Your task to perform on an android device: Show me productivity apps on the Play Store Image 0: 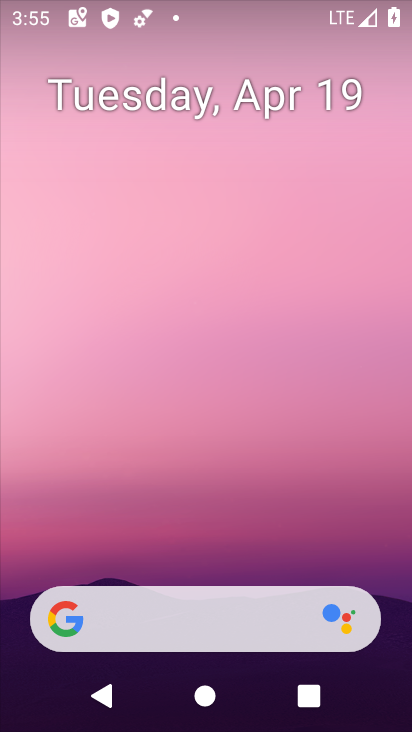
Step 0: drag from (209, 546) to (270, 87)
Your task to perform on an android device: Show me productivity apps on the Play Store Image 1: 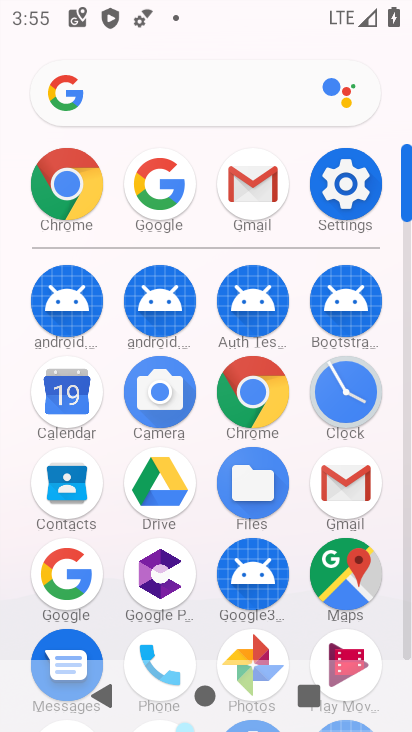
Step 1: drag from (192, 462) to (210, 303)
Your task to perform on an android device: Show me productivity apps on the Play Store Image 2: 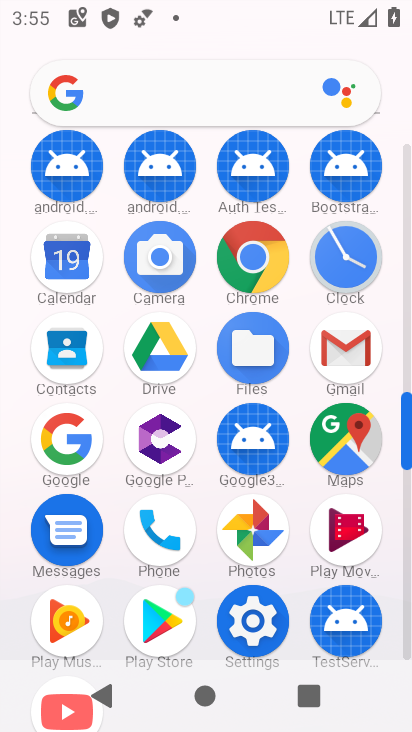
Step 2: drag from (207, 388) to (226, 247)
Your task to perform on an android device: Show me productivity apps on the Play Store Image 3: 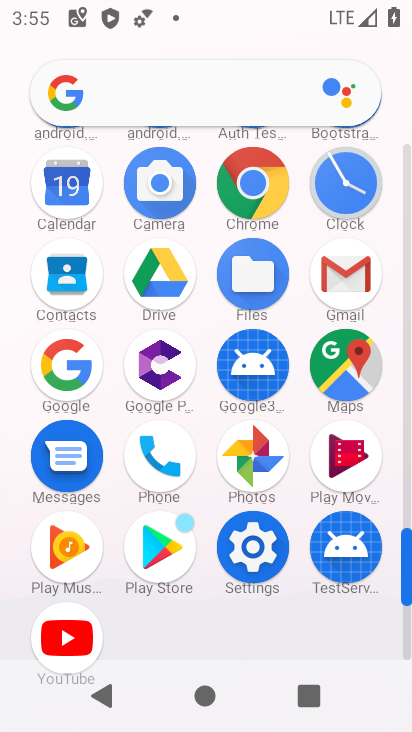
Step 3: click (159, 544)
Your task to perform on an android device: Show me productivity apps on the Play Store Image 4: 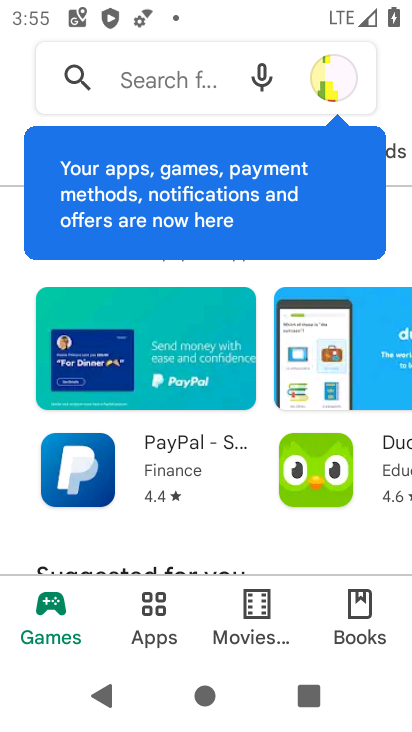
Step 4: click (151, 594)
Your task to perform on an android device: Show me productivity apps on the Play Store Image 5: 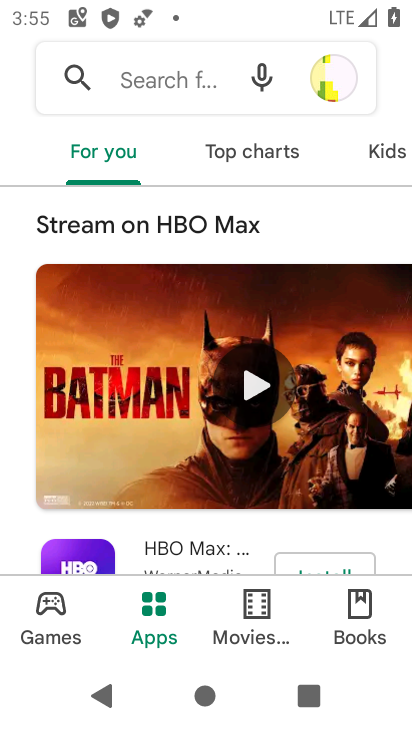
Step 5: drag from (322, 162) to (96, 178)
Your task to perform on an android device: Show me productivity apps on the Play Store Image 6: 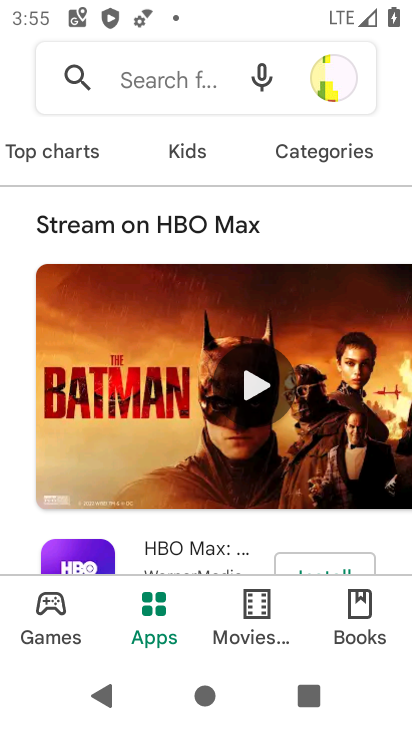
Step 6: click (324, 154)
Your task to perform on an android device: Show me productivity apps on the Play Store Image 7: 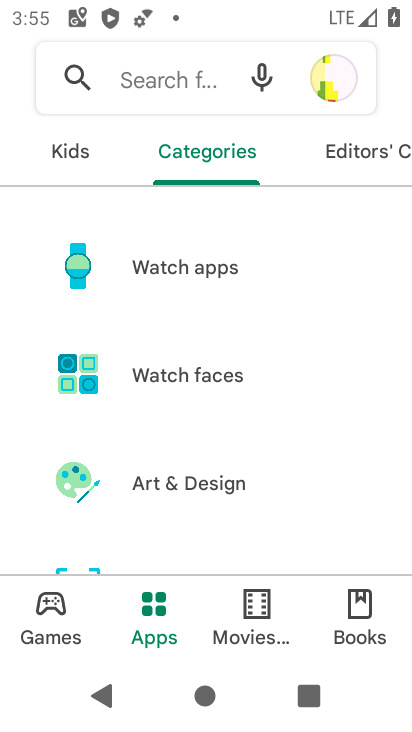
Step 7: drag from (214, 405) to (246, 332)
Your task to perform on an android device: Show me productivity apps on the Play Store Image 8: 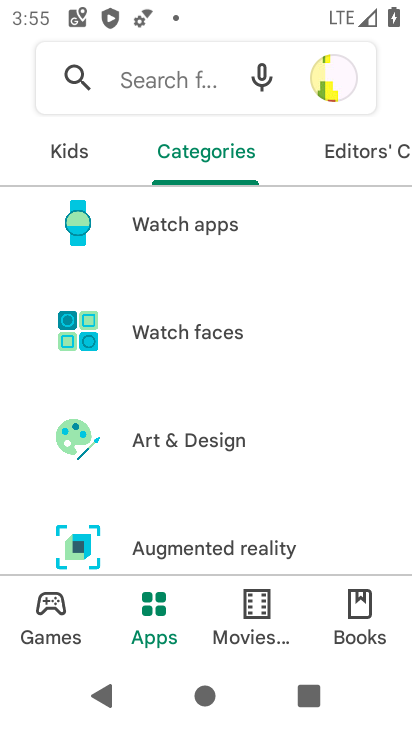
Step 8: drag from (238, 400) to (270, 334)
Your task to perform on an android device: Show me productivity apps on the Play Store Image 9: 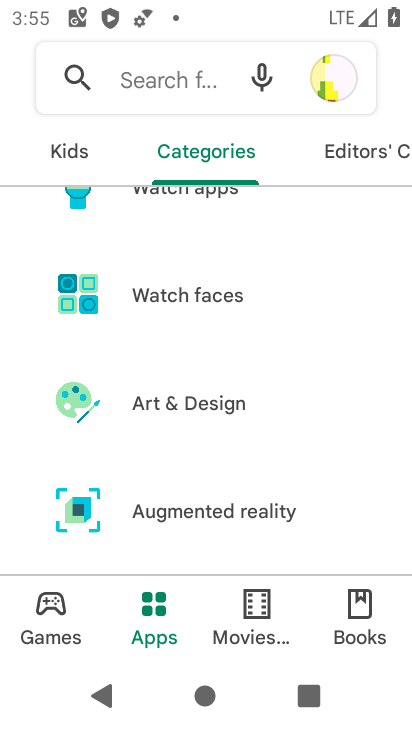
Step 9: drag from (258, 445) to (306, 354)
Your task to perform on an android device: Show me productivity apps on the Play Store Image 10: 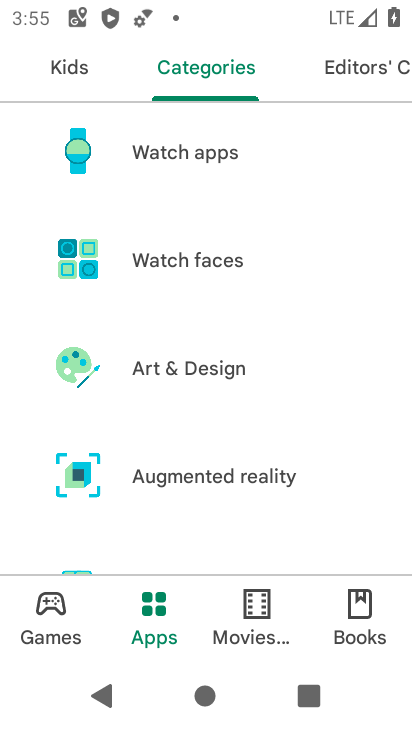
Step 10: drag from (227, 510) to (291, 396)
Your task to perform on an android device: Show me productivity apps on the Play Store Image 11: 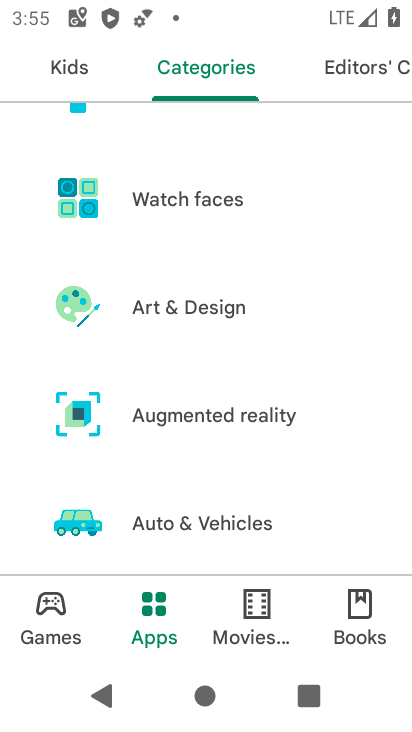
Step 11: drag from (254, 457) to (305, 342)
Your task to perform on an android device: Show me productivity apps on the Play Store Image 12: 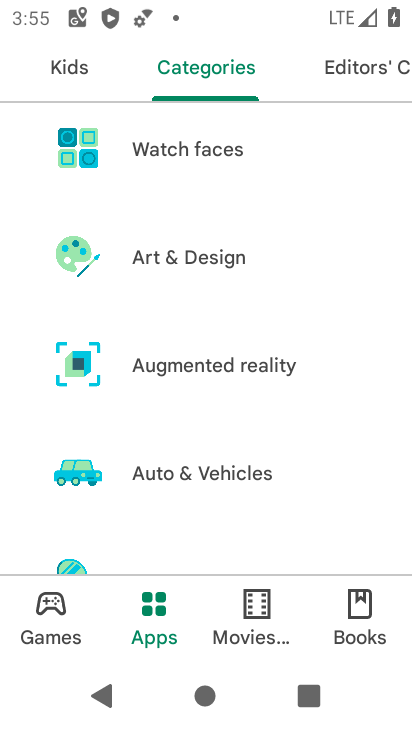
Step 12: drag from (234, 500) to (310, 386)
Your task to perform on an android device: Show me productivity apps on the Play Store Image 13: 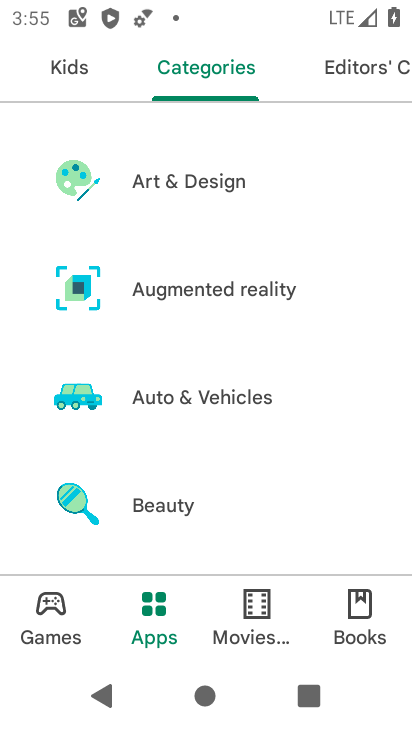
Step 13: drag from (244, 464) to (327, 364)
Your task to perform on an android device: Show me productivity apps on the Play Store Image 14: 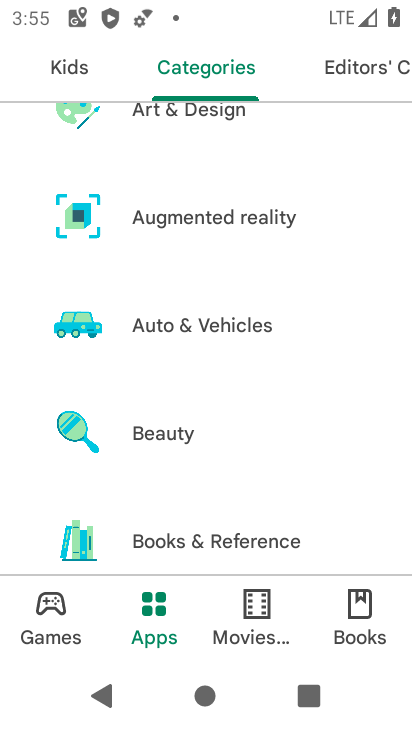
Step 14: drag from (247, 487) to (310, 379)
Your task to perform on an android device: Show me productivity apps on the Play Store Image 15: 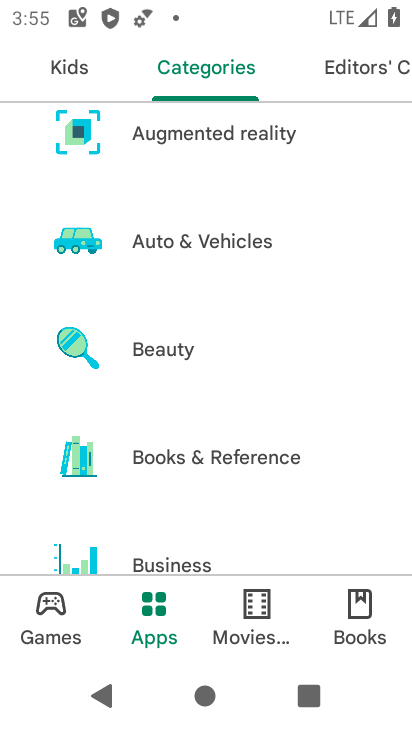
Step 15: drag from (207, 508) to (309, 388)
Your task to perform on an android device: Show me productivity apps on the Play Store Image 16: 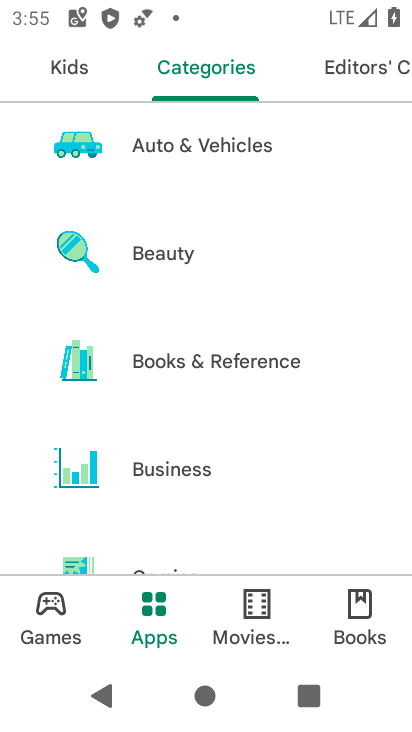
Step 16: drag from (183, 519) to (285, 403)
Your task to perform on an android device: Show me productivity apps on the Play Store Image 17: 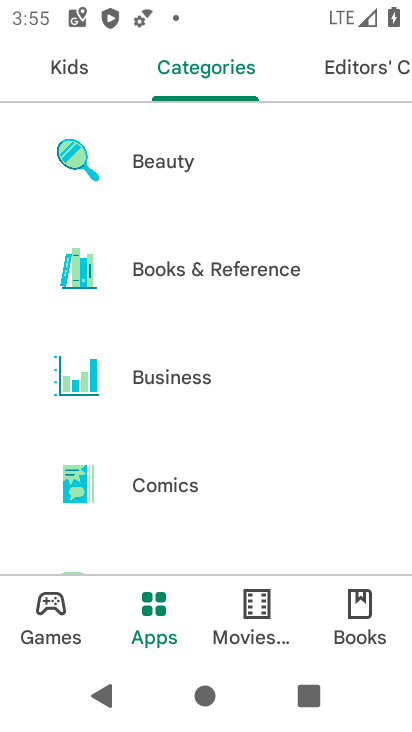
Step 17: drag from (164, 526) to (274, 408)
Your task to perform on an android device: Show me productivity apps on the Play Store Image 18: 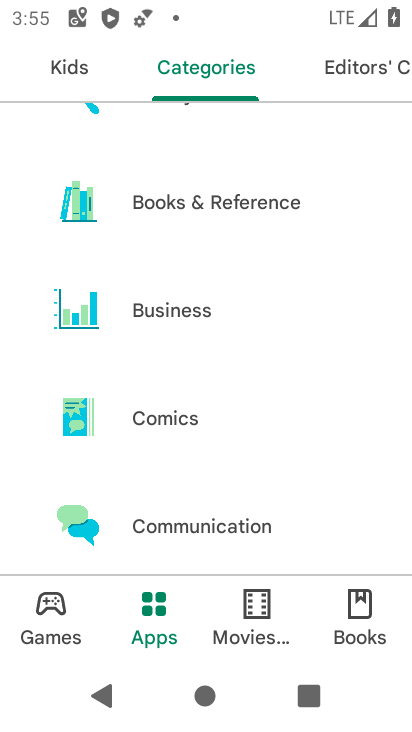
Step 18: drag from (157, 475) to (263, 368)
Your task to perform on an android device: Show me productivity apps on the Play Store Image 19: 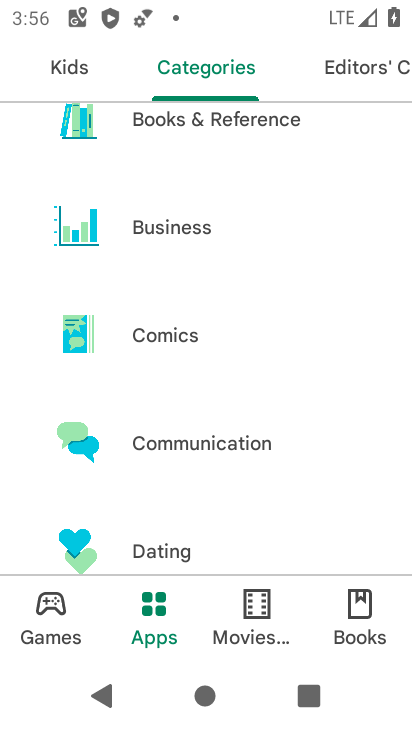
Step 19: drag from (170, 496) to (270, 381)
Your task to perform on an android device: Show me productivity apps on the Play Store Image 20: 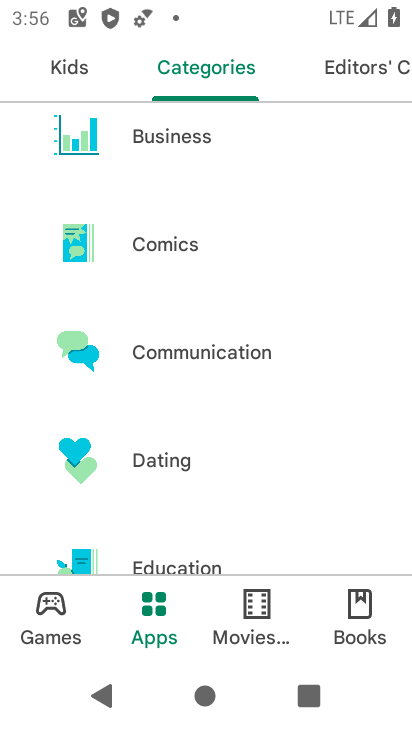
Step 20: drag from (125, 512) to (240, 392)
Your task to perform on an android device: Show me productivity apps on the Play Store Image 21: 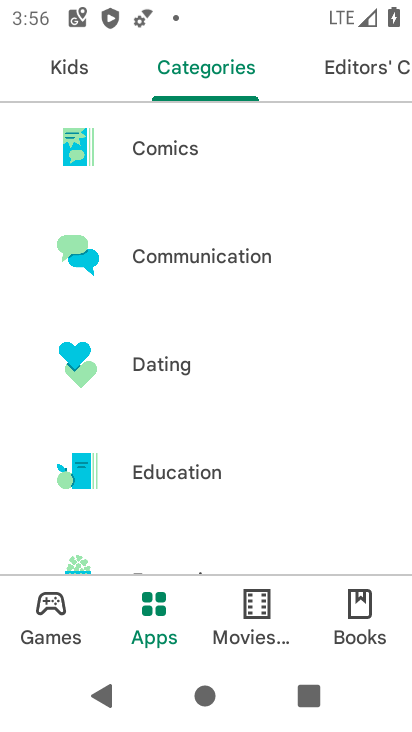
Step 21: drag from (119, 527) to (239, 396)
Your task to perform on an android device: Show me productivity apps on the Play Store Image 22: 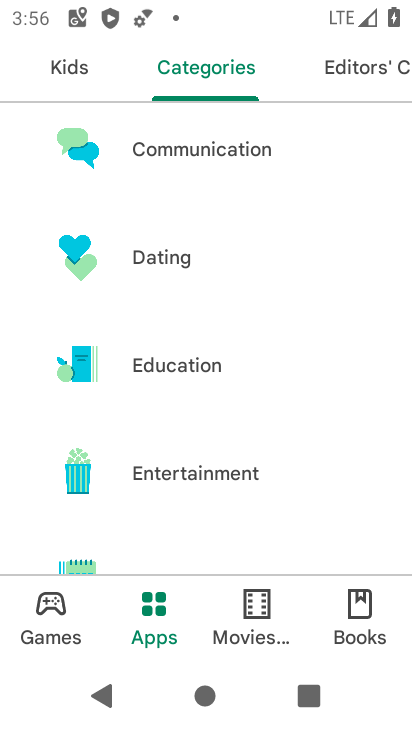
Step 22: drag from (117, 519) to (243, 394)
Your task to perform on an android device: Show me productivity apps on the Play Store Image 23: 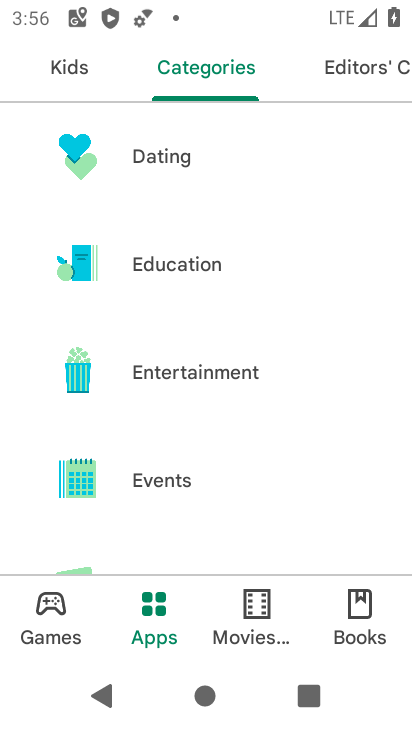
Step 23: drag from (102, 537) to (231, 403)
Your task to perform on an android device: Show me productivity apps on the Play Store Image 24: 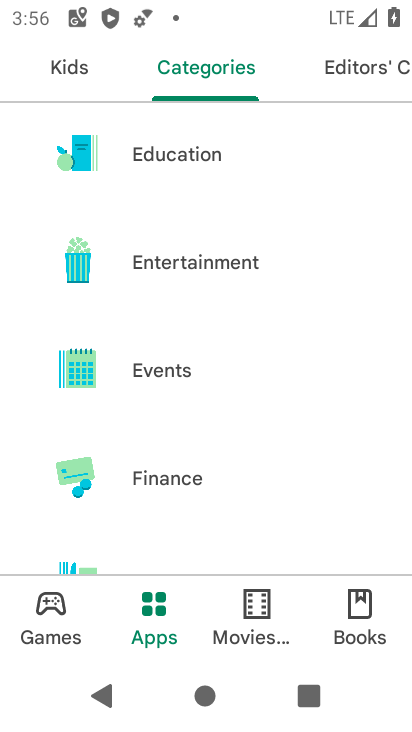
Step 24: drag from (74, 521) to (201, 407)
Your task to perform on an android device: Show me productivity apps on the Play Store Image 25: 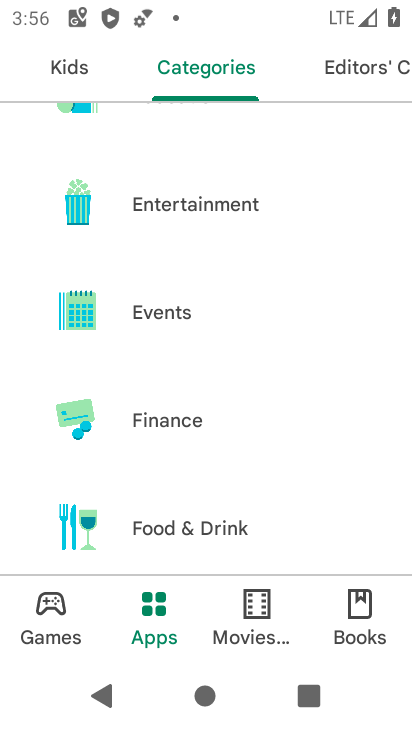
Step 25: drag from (87, 471) to (201, 376)
Your task to perform on an android device: Show me productivity apps on the Play Store Image 26: 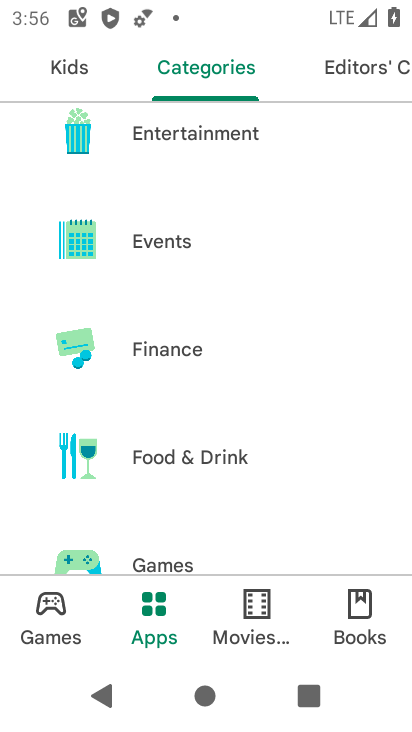
Step 26: drag from (90, 519) to (219, 392)
Your task to perform on an android device: Show me productivity apps on the Play Store Image 27: 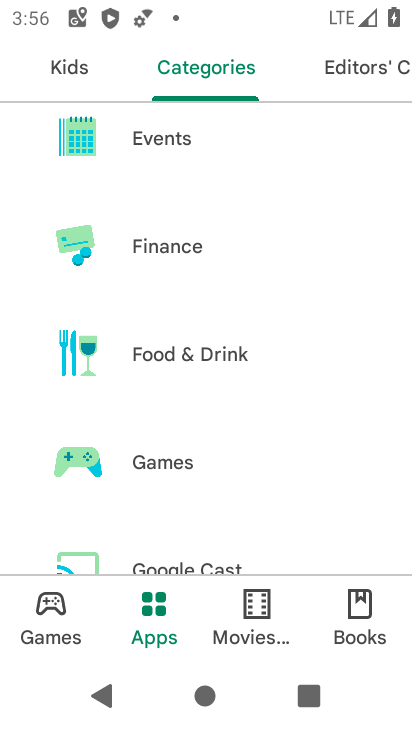
Step 27: drag from (66, 493) to (182, 392)
Your task to perform on an android device: Show me productivity apps on the Play Store Image 28: 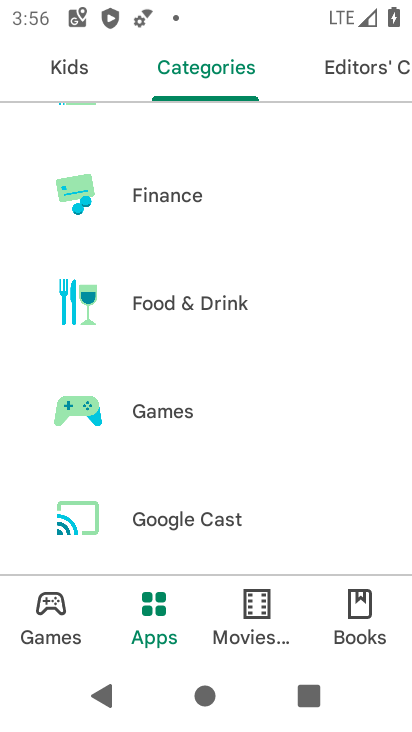
Step 28: drag from (100, 474) to (204, 383)
Your task to perform on an android device: Show me productivity apps on the Play Store Image 29: 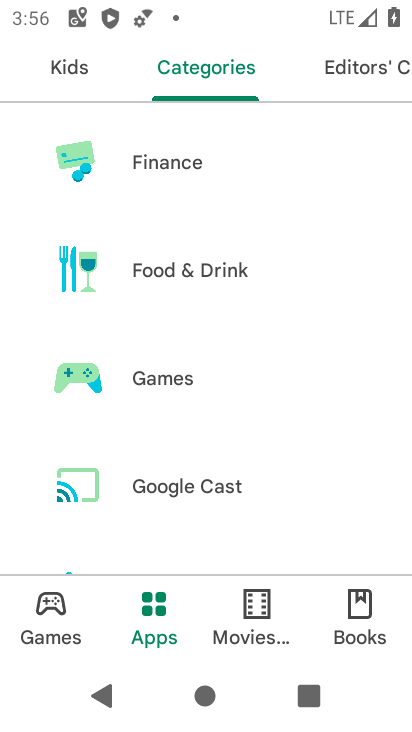
Step 29: drag from (64, 523) to (213, 403)
Your task to perform on an android device: Show me productivity apps on the Play Store Image 30: 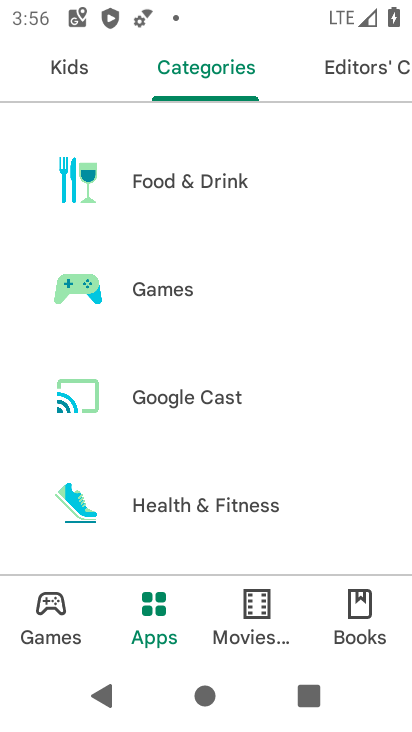
Step 30: drag from (91, 457) to (240, 318)
Your task to perform on an android device: Show me productivity apps on the Play Store Image 31: 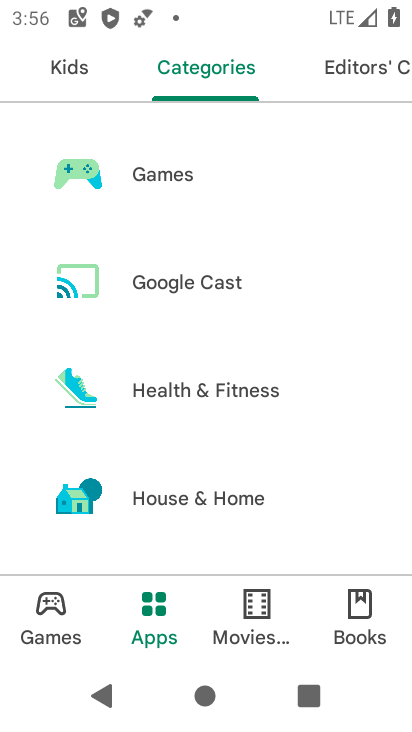
Step 31: drag from (92, 445) to (202, 327)
Your task to perform on an android device: Show me productivity apps on the Play Store Image 32: 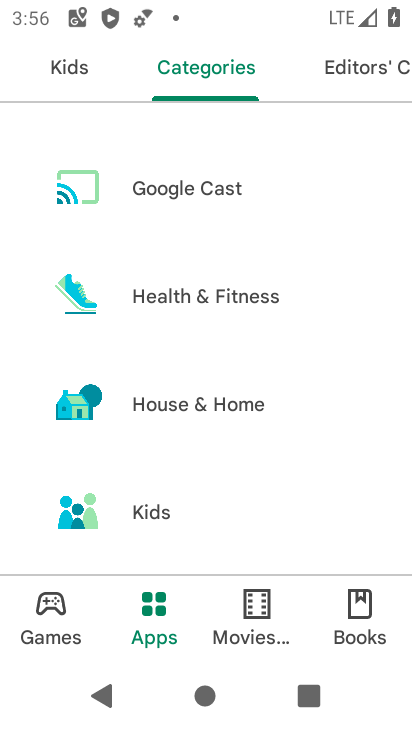
Step 32: drag from (77, 469) to (212, 334)
Your task to perform on an android device: Show me productivity apps on the Play Store Image 33: 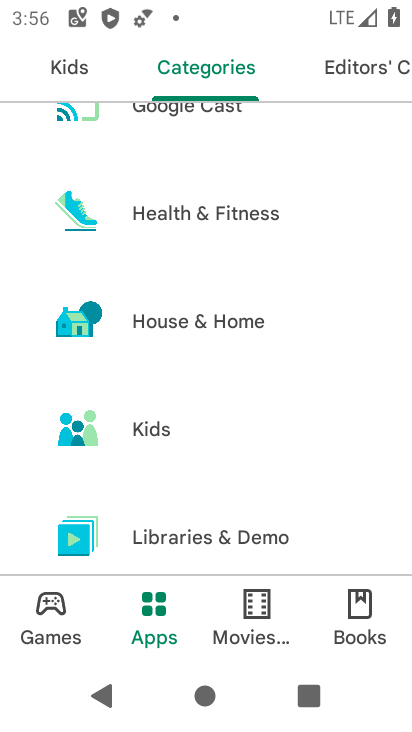
Step 33: drag from (100, 477) to (211, 367)
Your task to perform on an android device: Show me productivity apps on the Play Store Image 34: 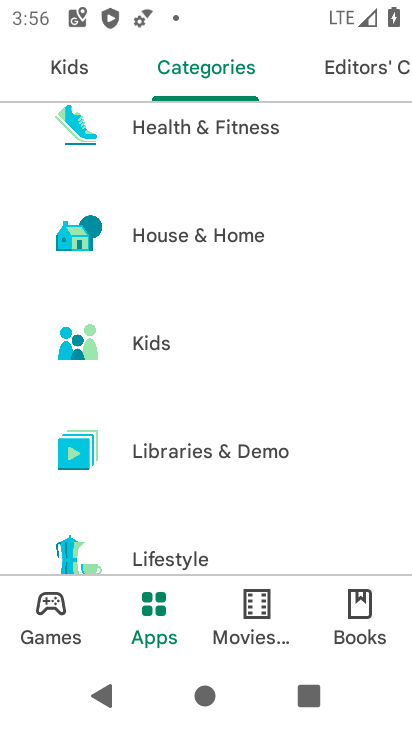
Step 34: drag from (84, 501) to (192, 371)
Your task to perform on an android device: Show me productivity apps on the Play Store Image 35: 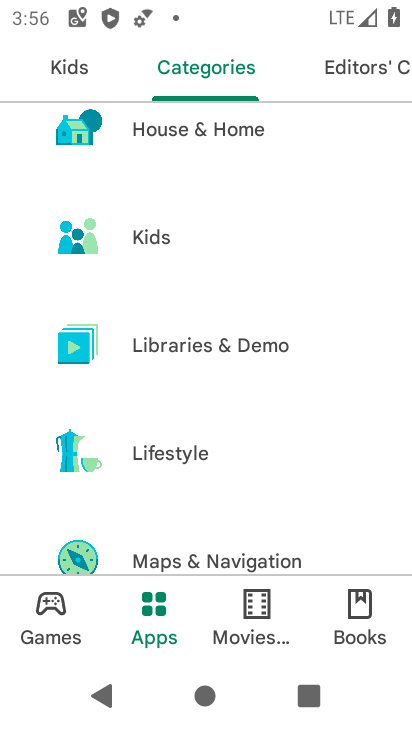
Step 35: drag from (75, 502) to (189, 363)
Your task to perform on an android device: Show me productivity apps on the Play Store Image 36: 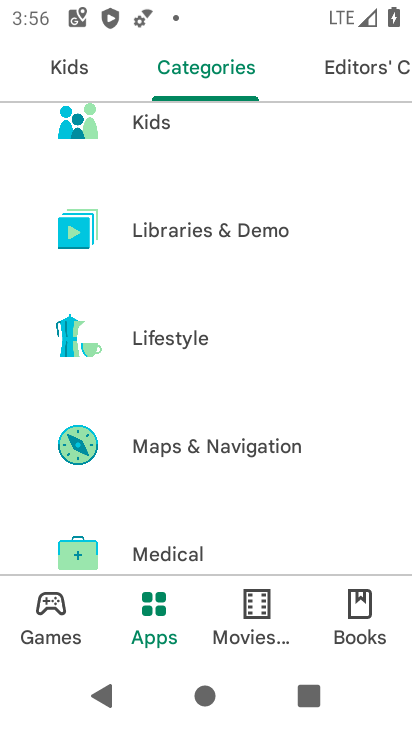
Step 36: drag from (93, 499) to (221, 341)
Your task to perform on an android device: Show me productivity apps on the Play Store Image 37: 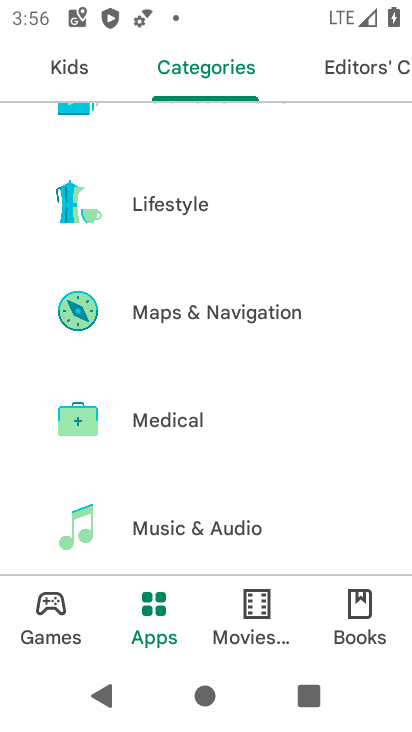
Step 37: drag from (103, 466) to (221, 312)
Your task to perform on an android device: Show me productivity apps on the Play Store Image 38: 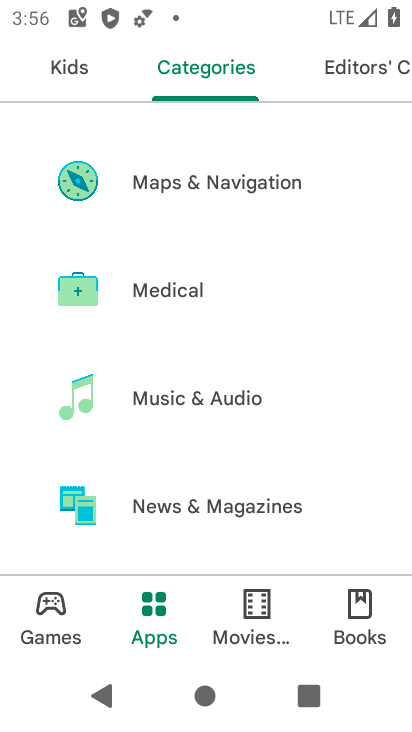
Step 38: drag from (84, 444) to (185, 323)
Your task to perform on an android device: Show me productivity apps on the Play Store Image 39: 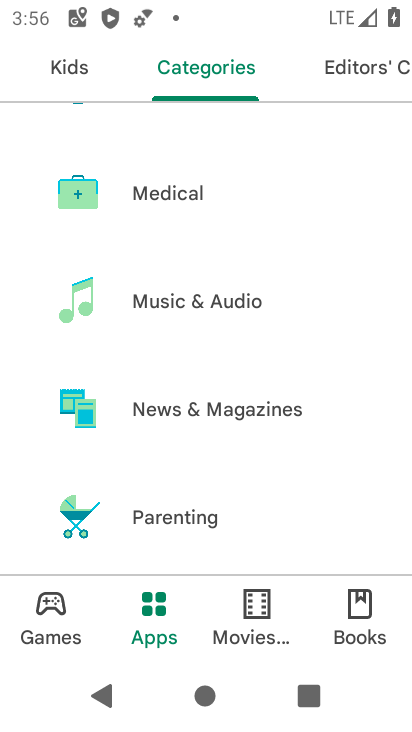
Step 39: drag from (62, 457) to (178, 340)
Your task to perform on an android device: Show me productivity apps on the Play Store Image 40: 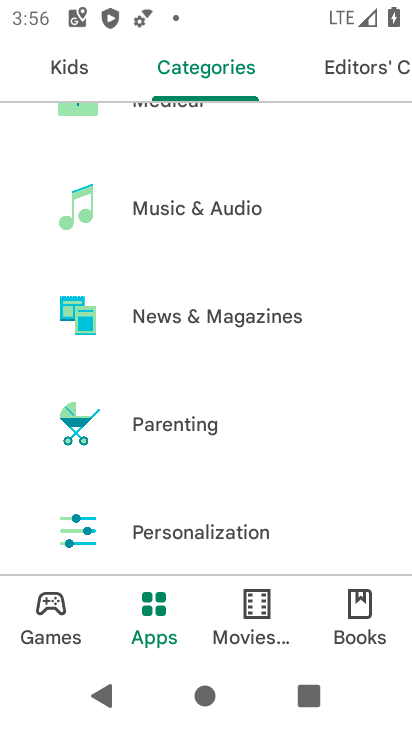
Step 40: drag from (73, 475) to (164, 372)
Your task to perform on an android device: Show me productivity apps on the Play Store Image 41: 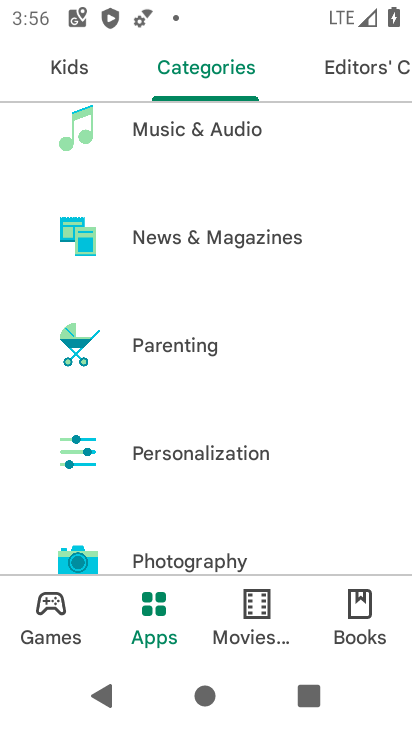
Step 41: drag from (78, 506) to (193, 382)
Your task to perform on an android device: Show me productivity apps on the Play Store Image 42: 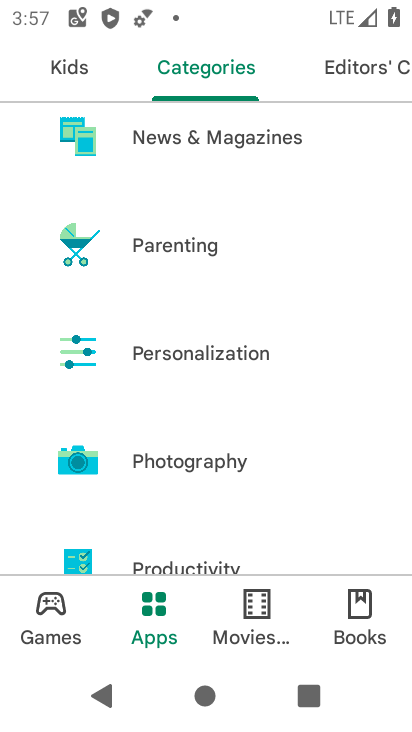
Step 42: drag from (114, 490) to (210, 380)
Your task to perform on an android device: Show me productivity apps on the Play Store Image 43: 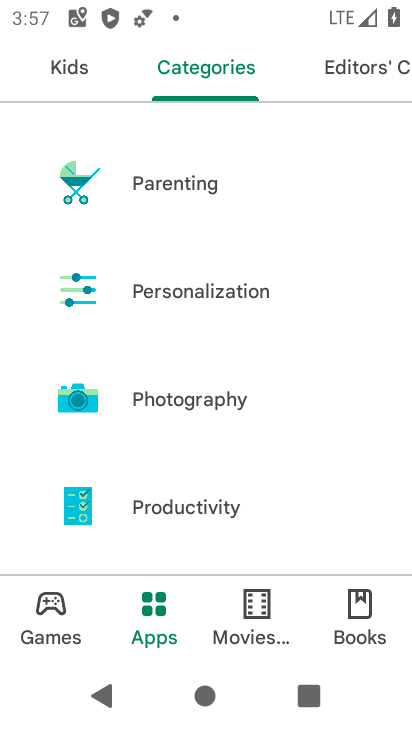
Step 43: click (181, 510)
Your task to perform on an android device: Show me productivity apps on the Play Store Image 44: 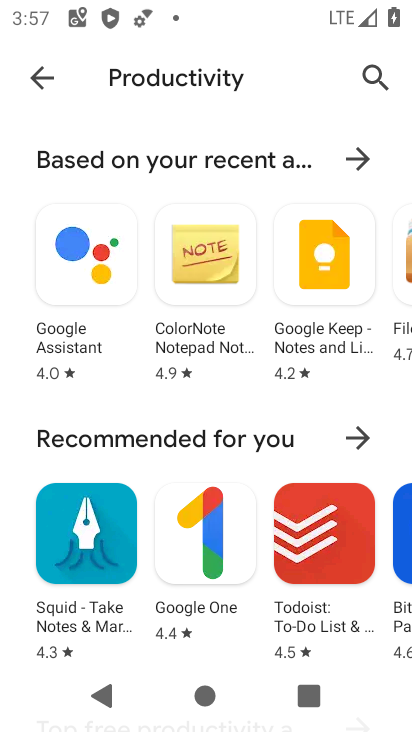
Step 44: task complete